Your task to perform on an android device: manage bookmarks in the chrome app Image 0: 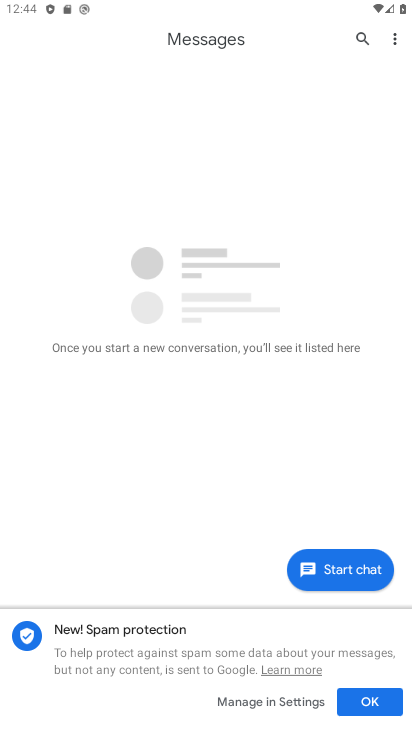
Step 0: press home button
Your task to perform on an android device: manage bookmarks in the chrome app Image 1: 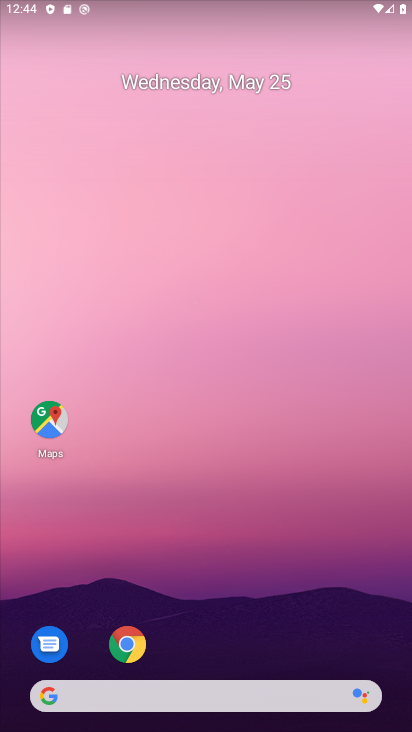
Step 1: click (131, 641)
Your task to perform on an android device: manage bookmarks in the chrome app Image 2: 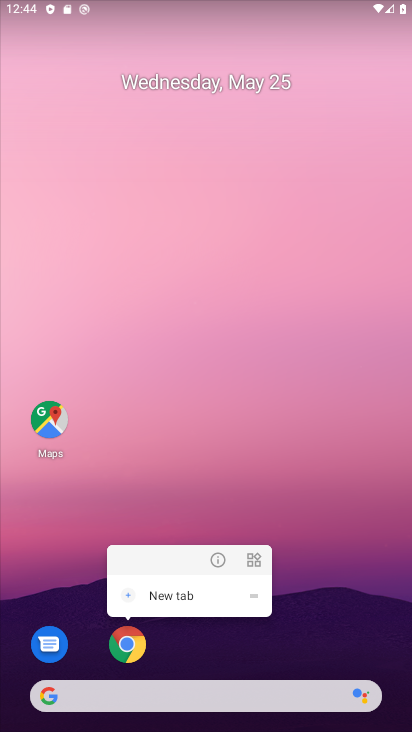
Step 2: click (131, 641)
Your task to perform on an android device: manage bookmarks in the chrome app Image 3: 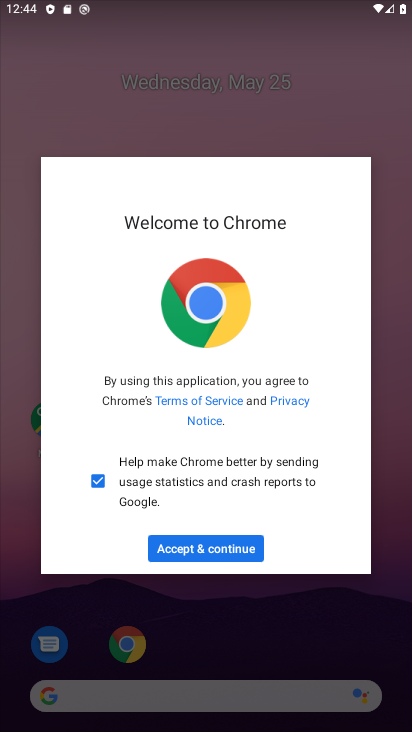
Step 3: click (211, 546)
Your task to perform on an android device: manage bookmarks in the chrome app Image 4: 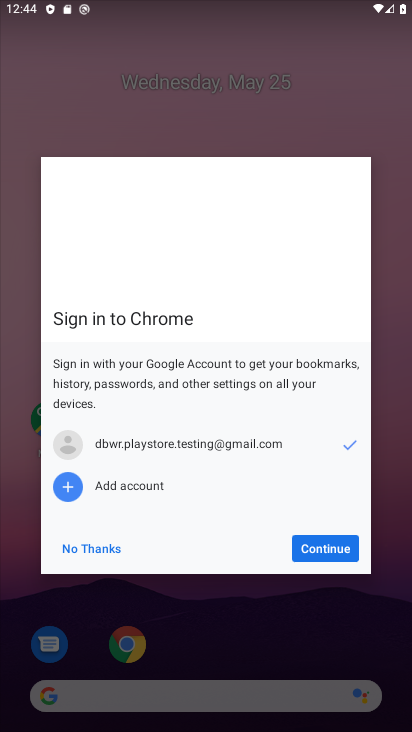
Step 4: click (308, 547)
Your task to perform on an android device: manage bookmarks in the chrome app Image 5: 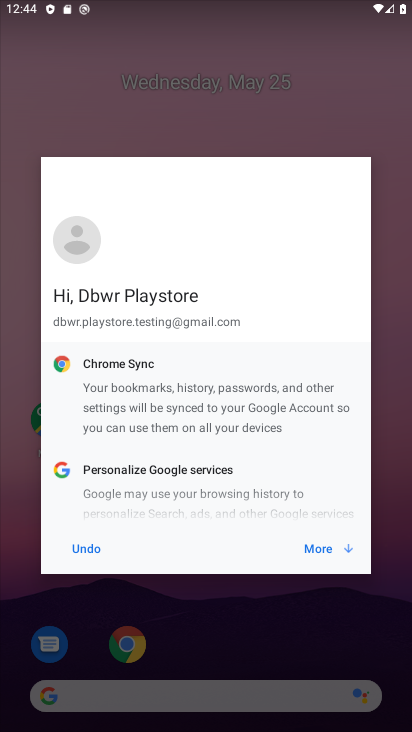
Step 5: click (309, 547)
Your task to perform on an android device: manage bookmarks in the chrome app Image 6: 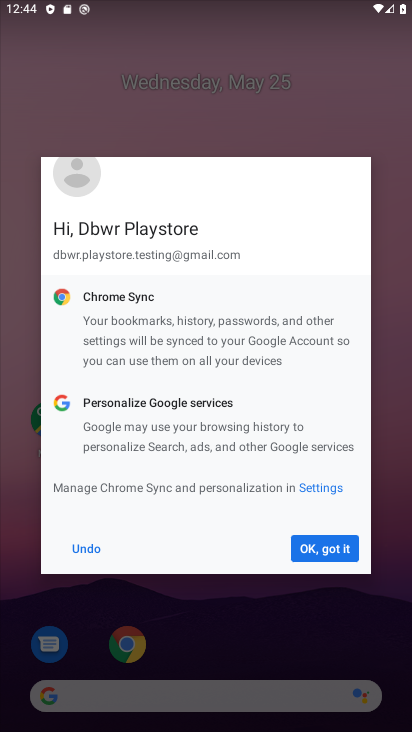
Step 6: click (306, 546)
Your task to perform on an android device: manage bookmarks in the chrome app Image 7: 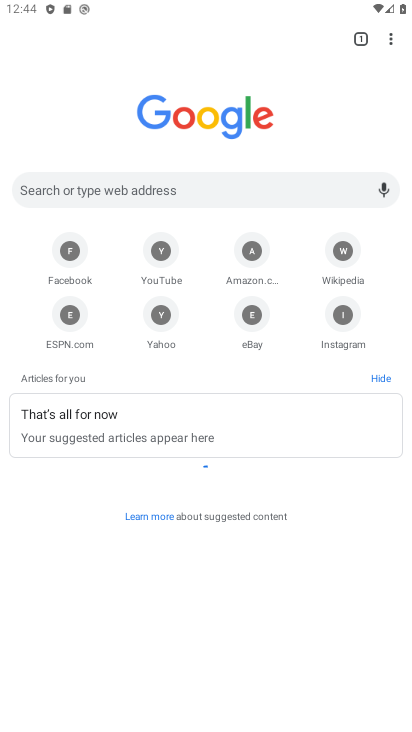
Step 7: click (384, 37)
Your task to perform on an android device: manage bookmarks in the chrome app Image 8: 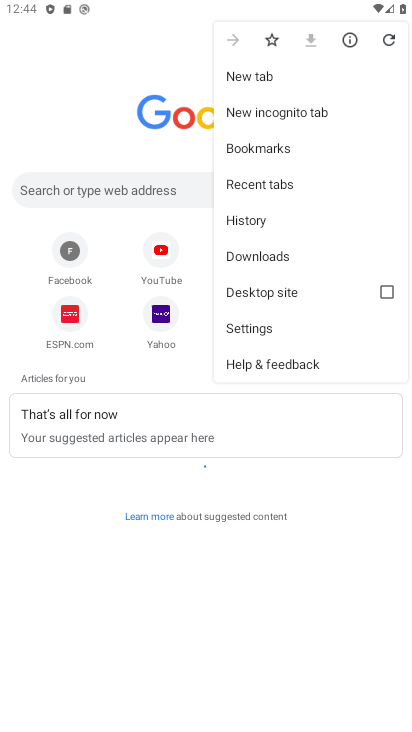
Step 8: click (275, 150)
Your task to perform on an android device: manage bookmarks in the chrome app Image 9: 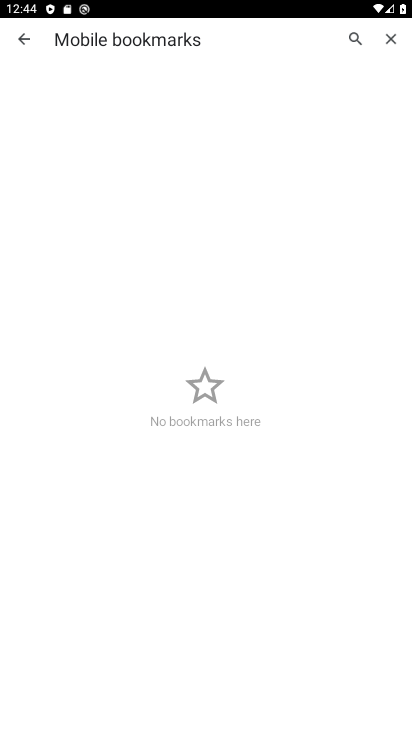
Step 9: click (390, 47)
Your task to perform on an android device: manage bookmarks in the chrome app Image 10: 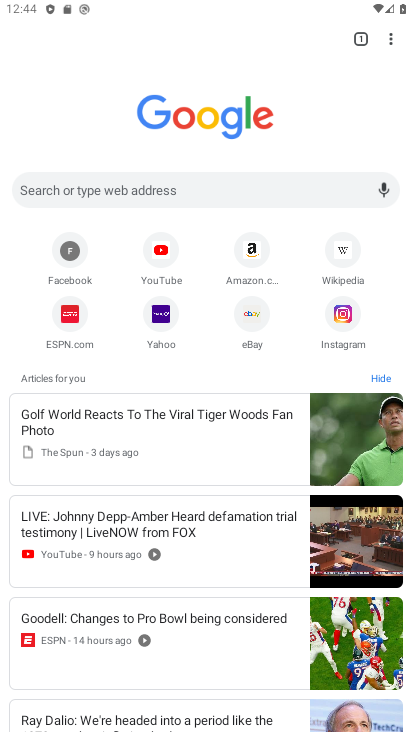
Step 10: click (387, 41)
Your task to perform on an android device: manage bookmarks in the chrome app Image 11: 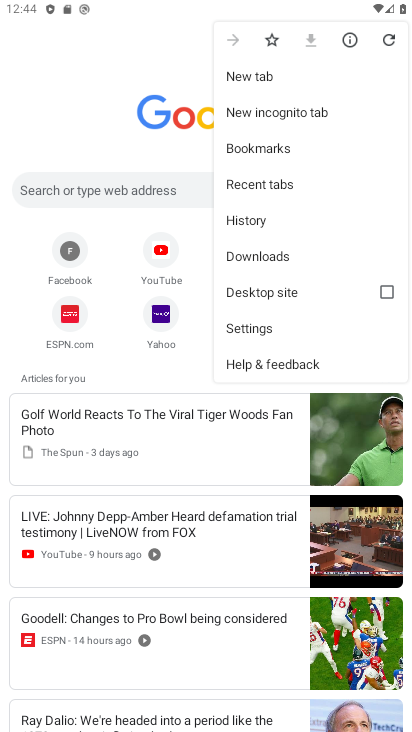
Step 11: click (270, 36)
Your task to perform on an android device: manage bookmarks in the chrome app Image 12: 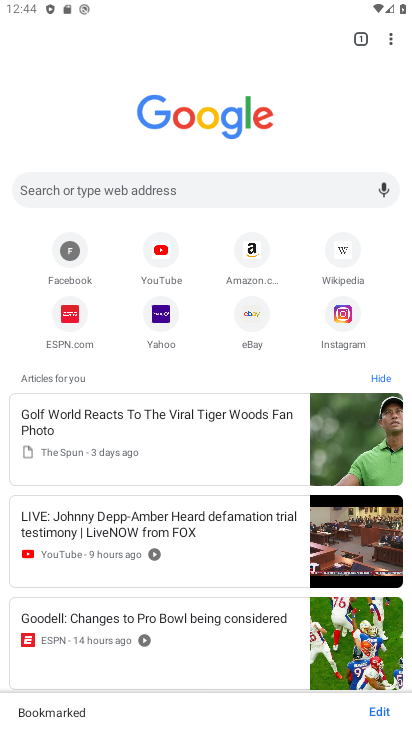
Step 12: task complete